Your task to perform on an android device: What's the weather? Image 0: 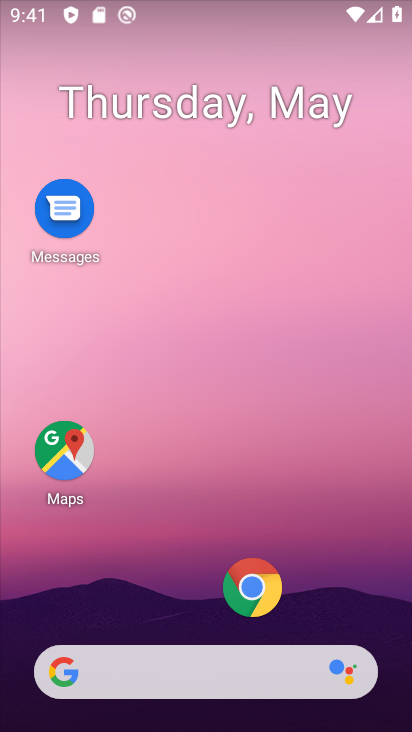
Step 0: click (218, 678)
Your task to perform on an android device: What's the weather? Image 1: 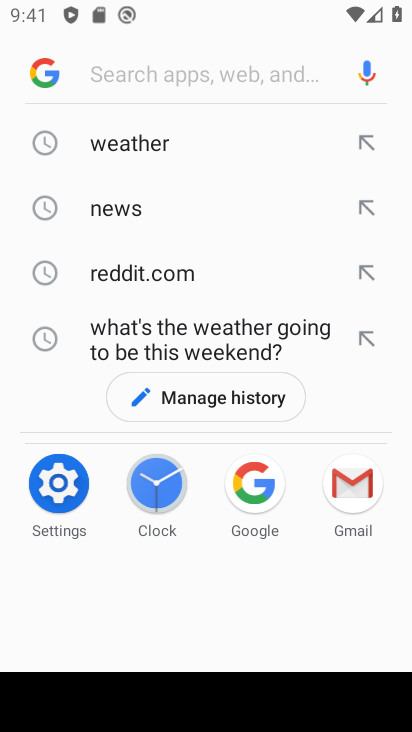
Step 1: click (170, 141)
Your task to perform on an android device: What's the weather? Image 2: 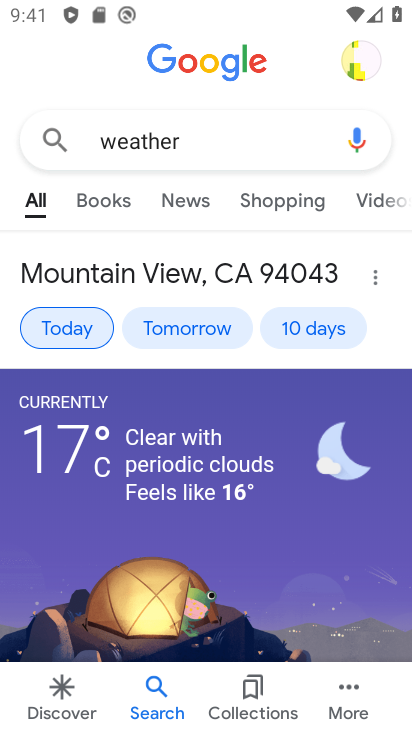
Step 2: task complete